Your task to perform on an android device: open a bookmark in the chrome app Image 0: 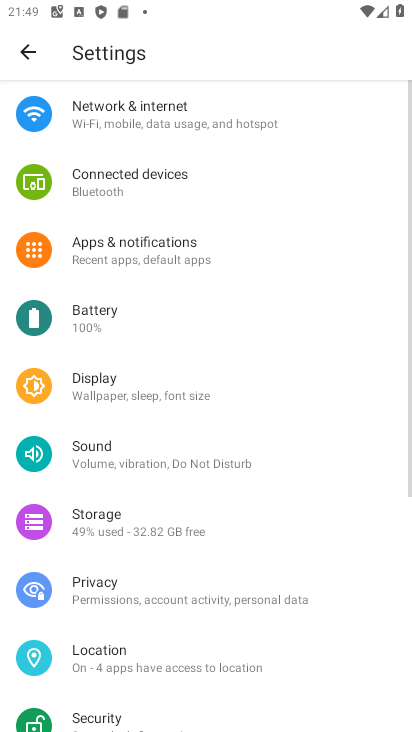
Step 0: press home button
Your task to perform on an android device: open a bookmark in the chrome app Image 1: 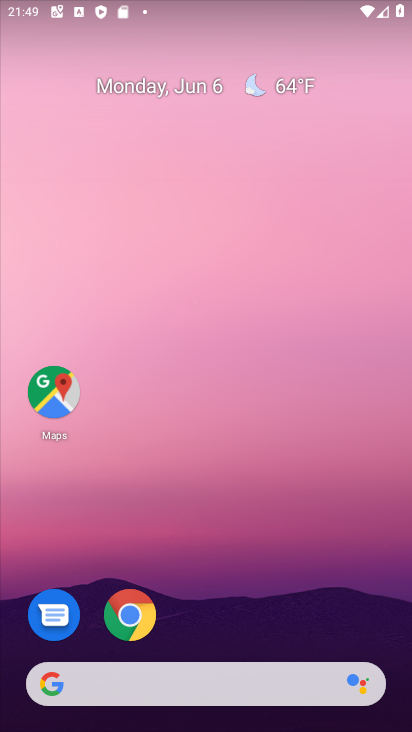
Step 1: click (130, 607)
Your task to perform on an android device: open a bookmark in the chrome app Image 2: 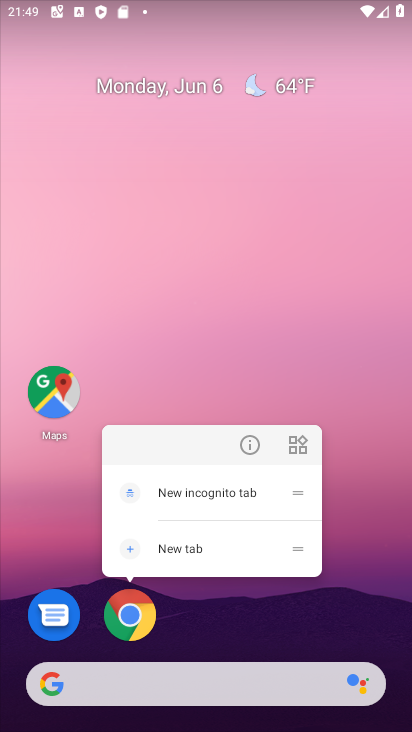
Step 2: click (131, 609)
Your task to perform on an android device: open a bookmark in the chrome app Image 3: 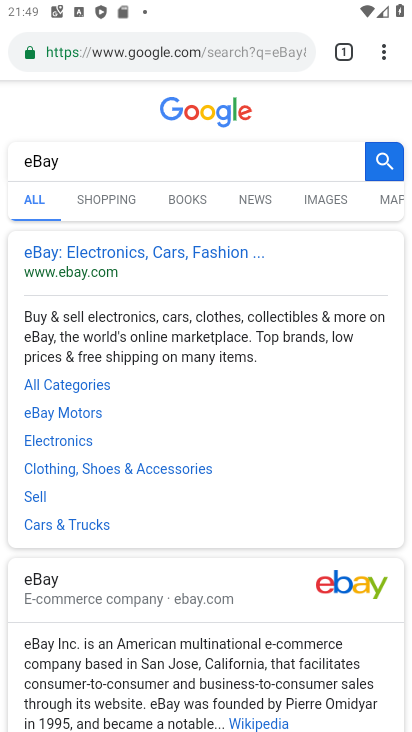
Step 3: click (386, 49)
Your task to perform on an android device: open a bookmark in the chrome app Image 4: 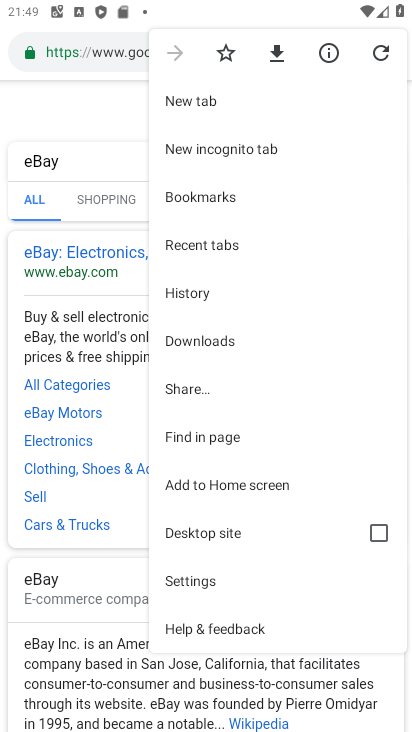
Step 4: click (190, 199)
Your task to perform on an android device: open a bookmark in the chrome app Image 5: 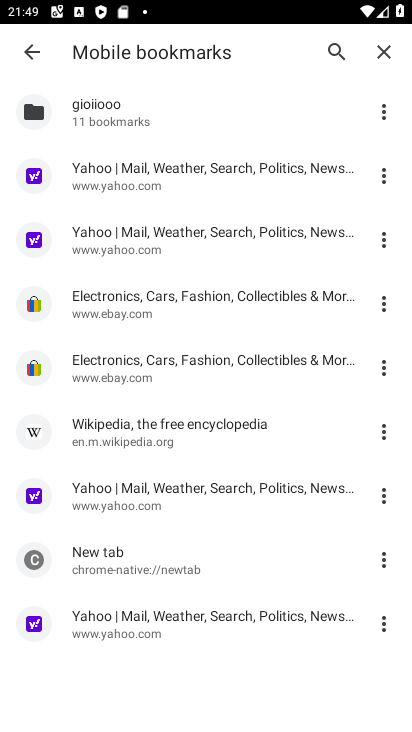
Step 5: click (105, 292)
Your task to perform on an android device: open a bookmark in the chrome app Image 6: 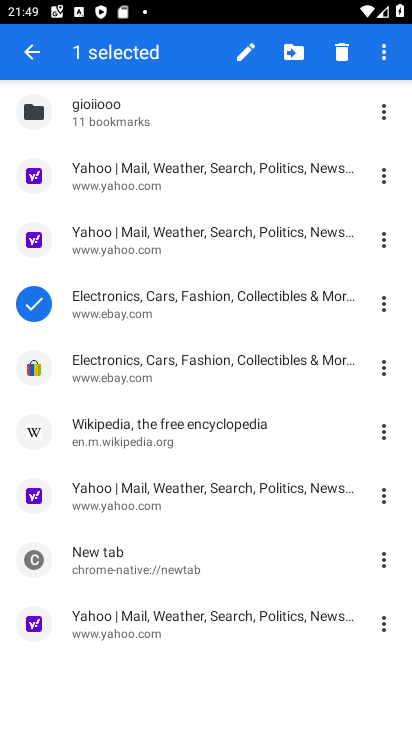
Step 6: click (171, 309)
Your task to perform on an android device: open a bookmark in the chrome app Image 7: 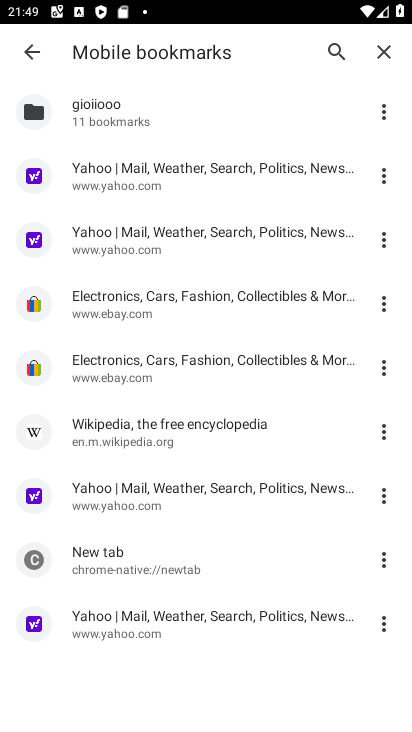
Step 7: click (170, 303)
Your task to perform on an android device: open a bookmark in the chrome app Image 8: 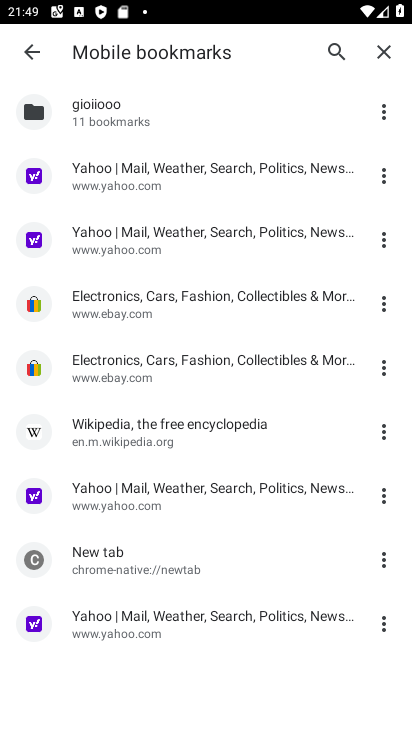
Step 8: click (381, 303)
Your task to perform on an android device: open a bookmark in the chrome app Image 9: 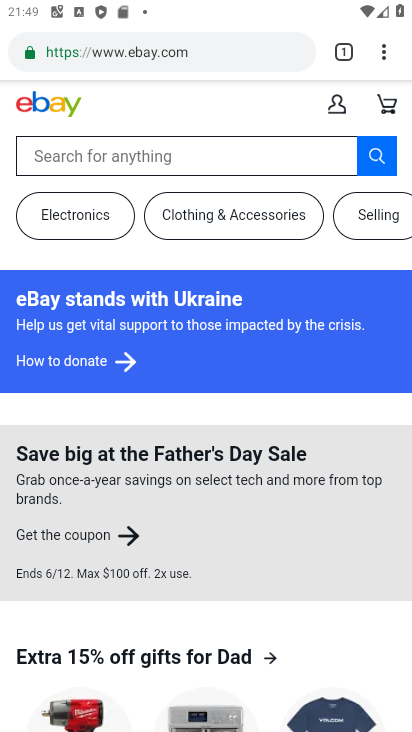
Step 9: task complete